Your task to perform on an android device: Search for a coffee table on IKEA Image 0: 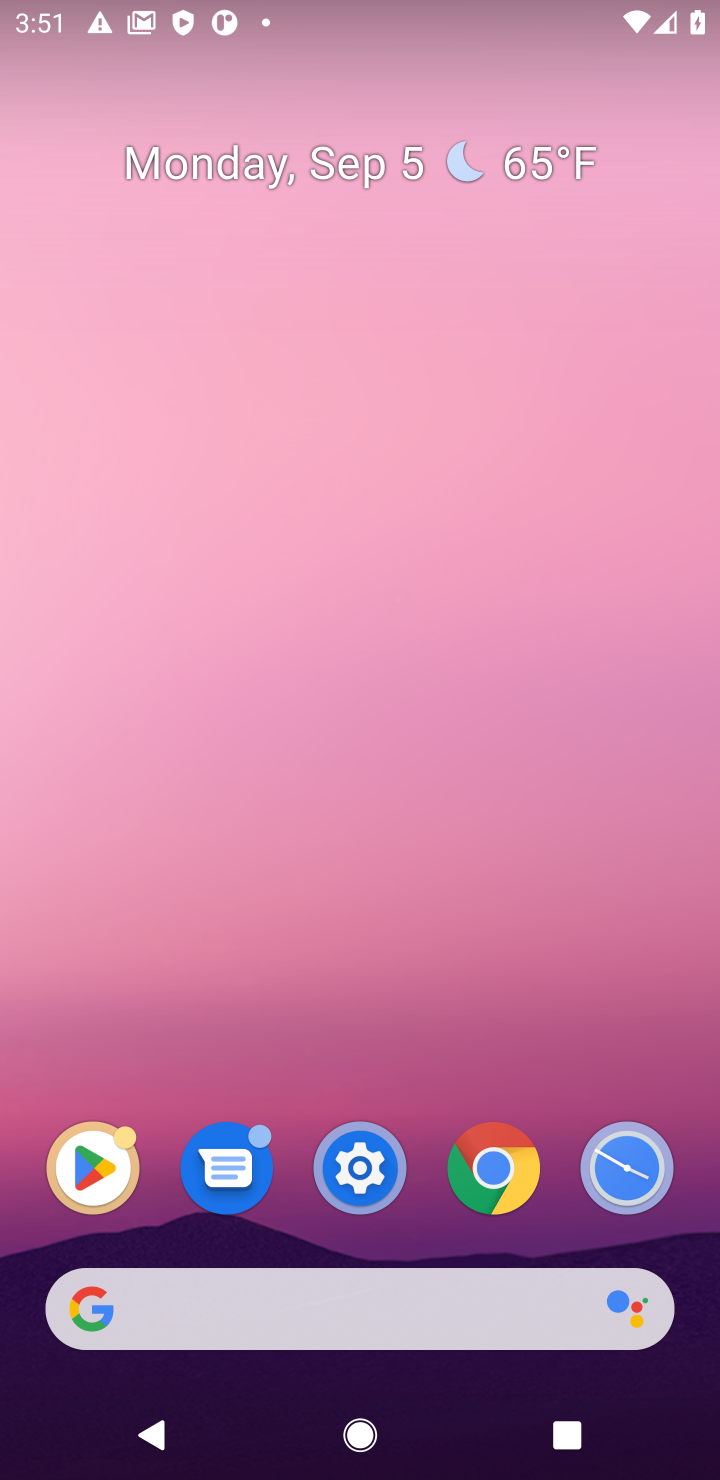
Step 0: click (518, 1280)
Your task to perform on an android device: Search for a coffee table on IKEA Image 1: 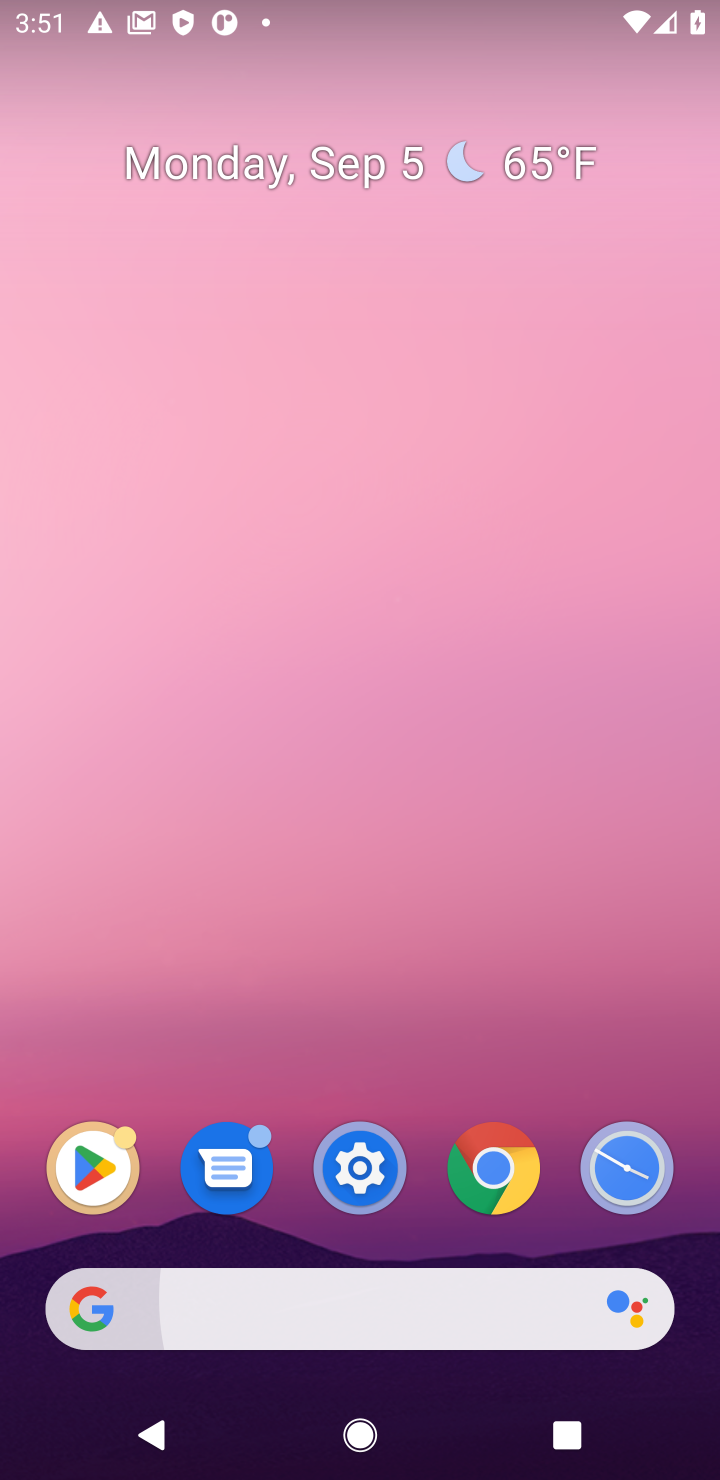
Step 1: click (502, 1299)
Your task to perform on an android device: Search for a coffee table on IKEA Image 2: 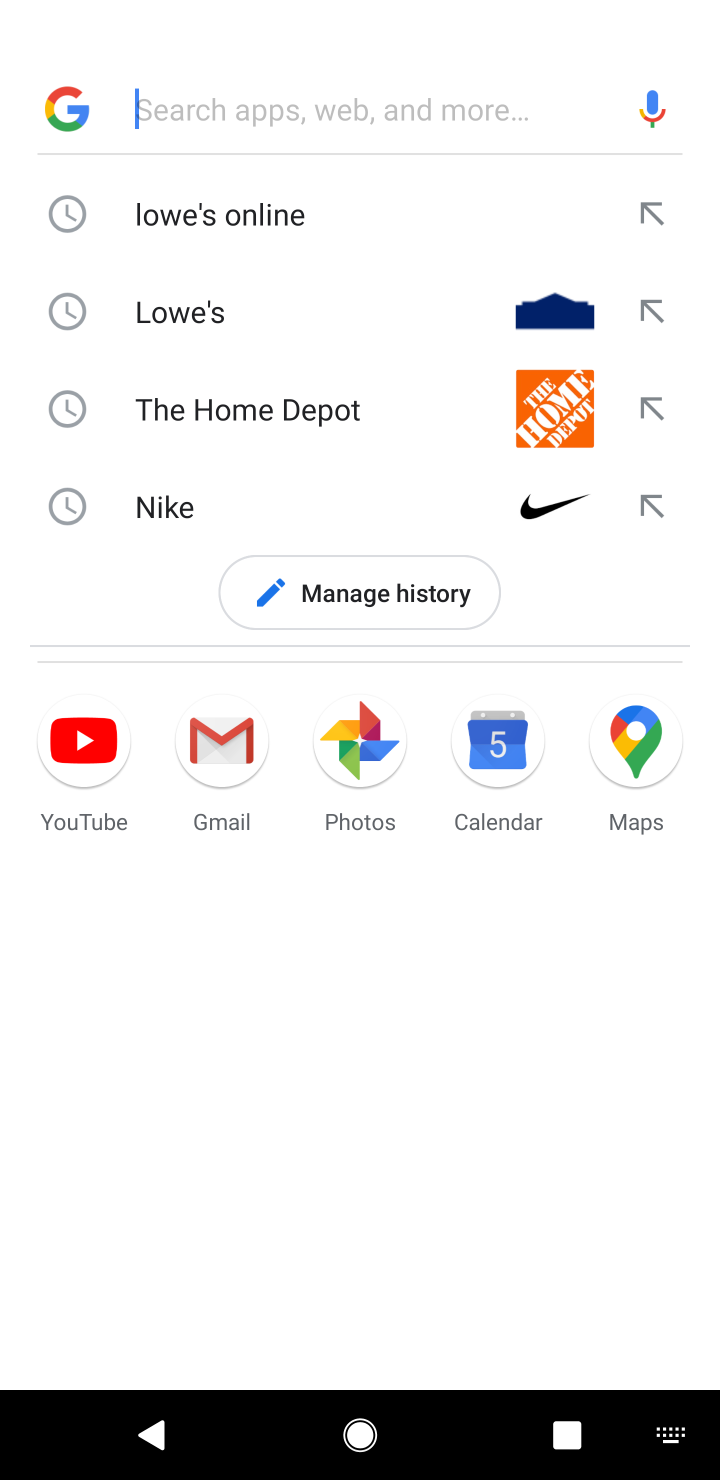
Step 2: type "ikea"
Your task to perform on an android device: Search for a coffee table on IKEA Image 3: 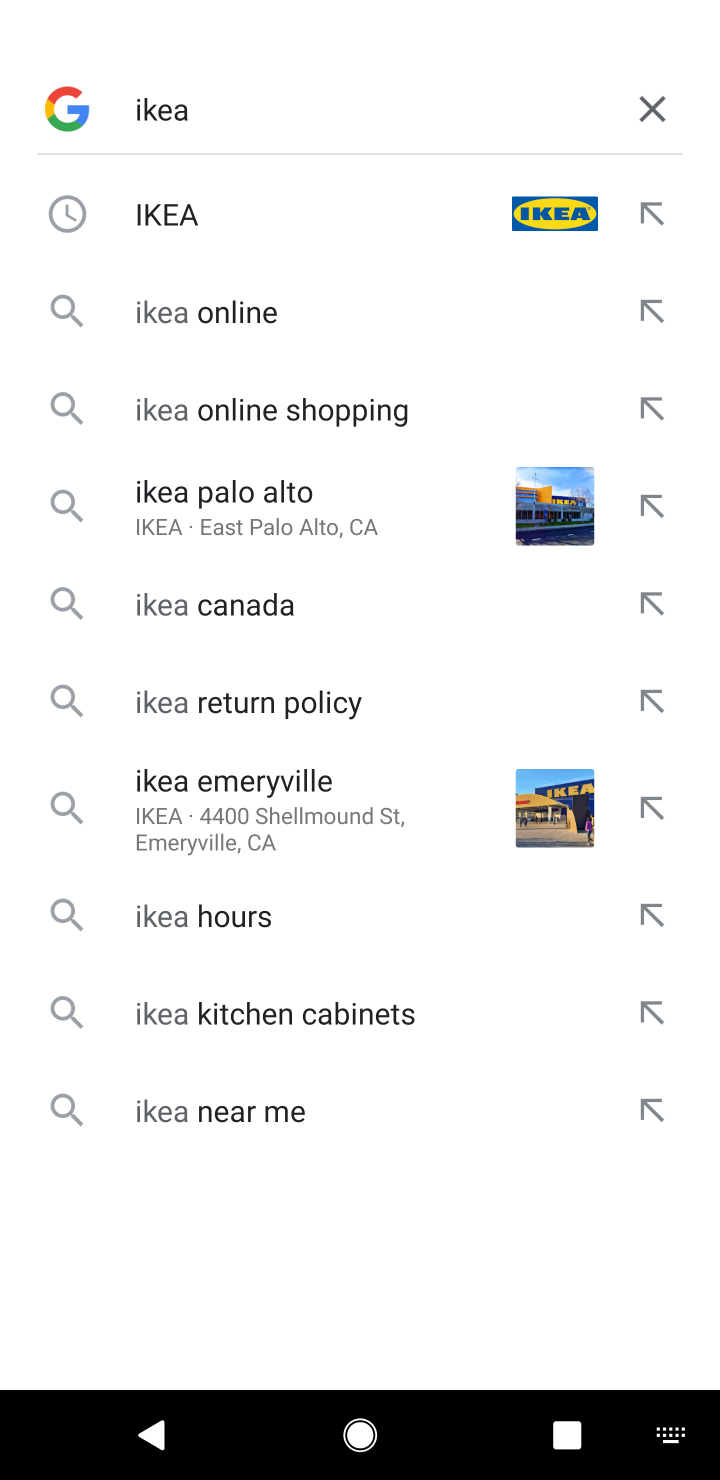
Step 3: click (191, 222)
Your task to perform on an android device: Search for a coffee table on IKEA Image 4: 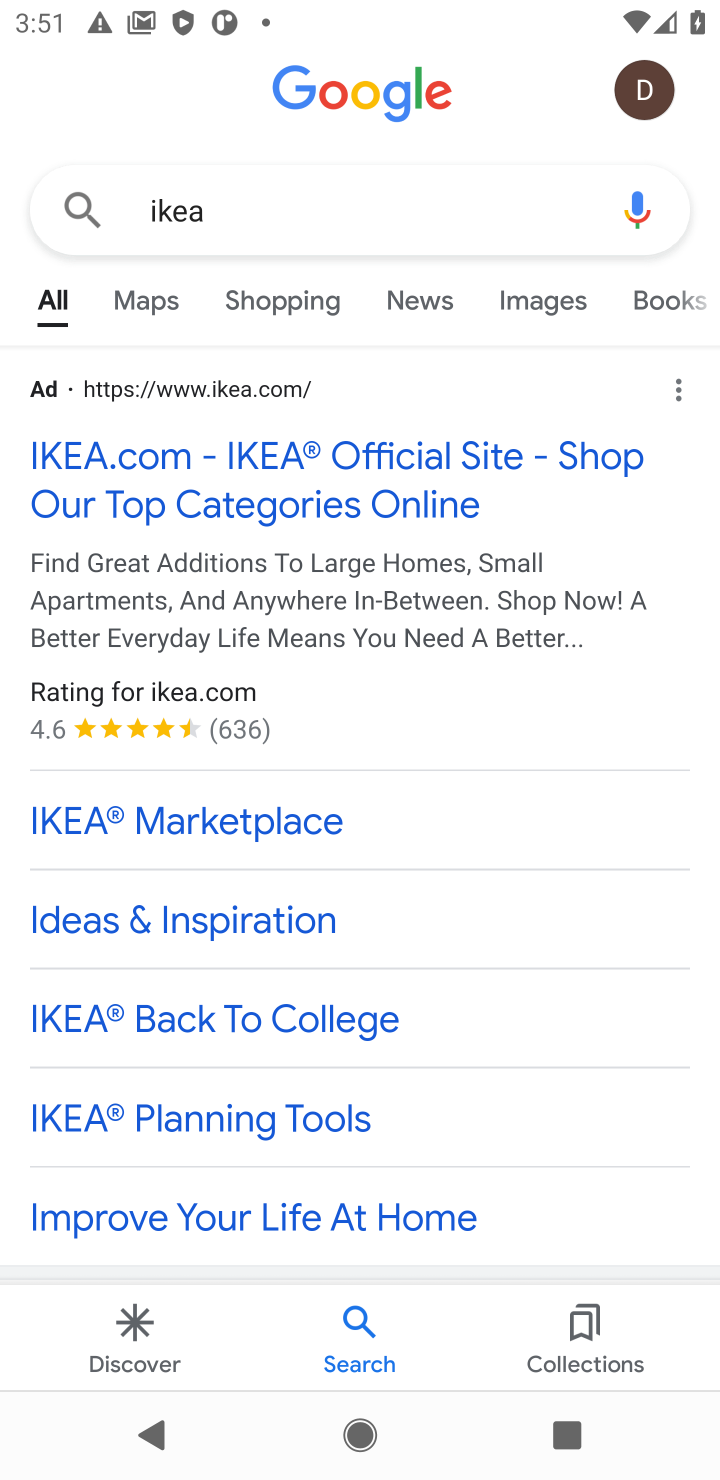
Step 4: click (500, 476)
Your task to perform on an android device: Search for a coffee table on IKEA Image 5: 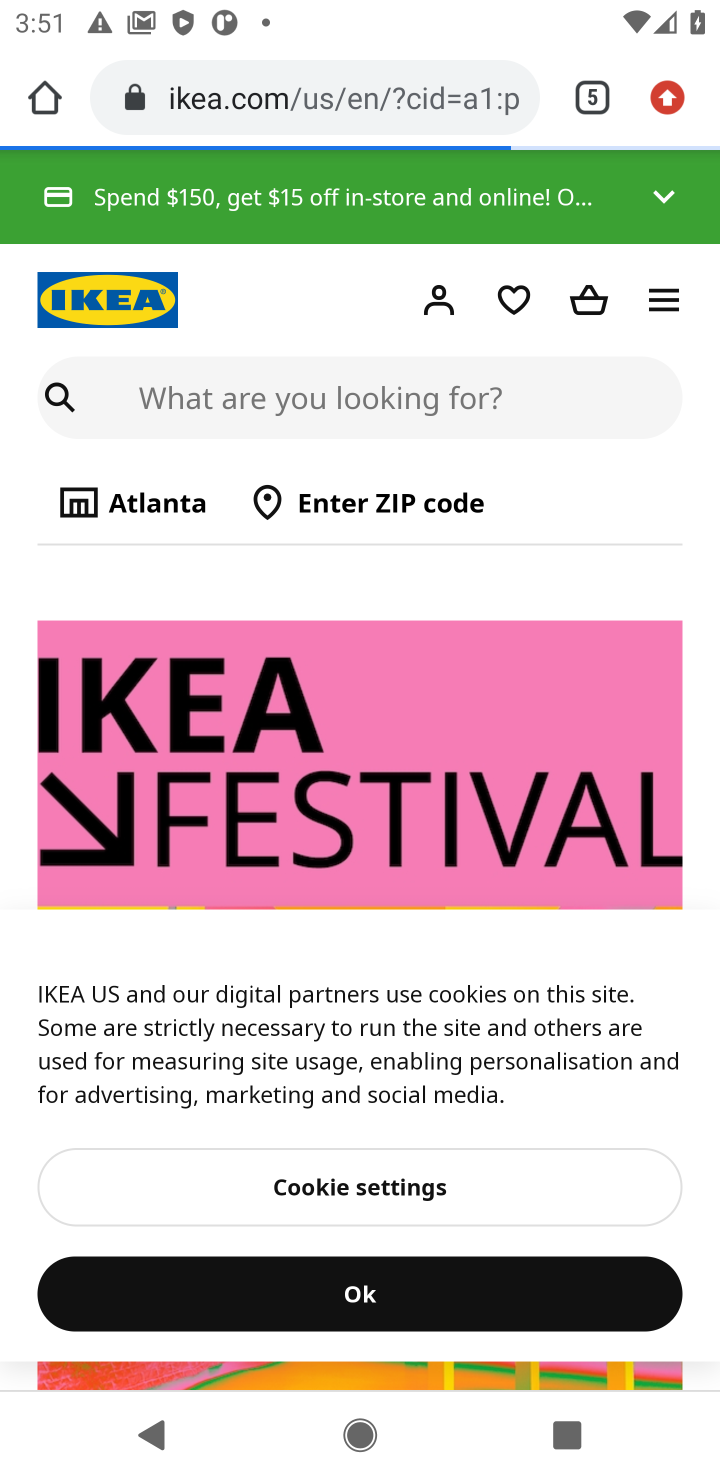
Step 5: click (263, 394)
Your task to perform on an android device: Search for a coffee table on IKEA Image 6: 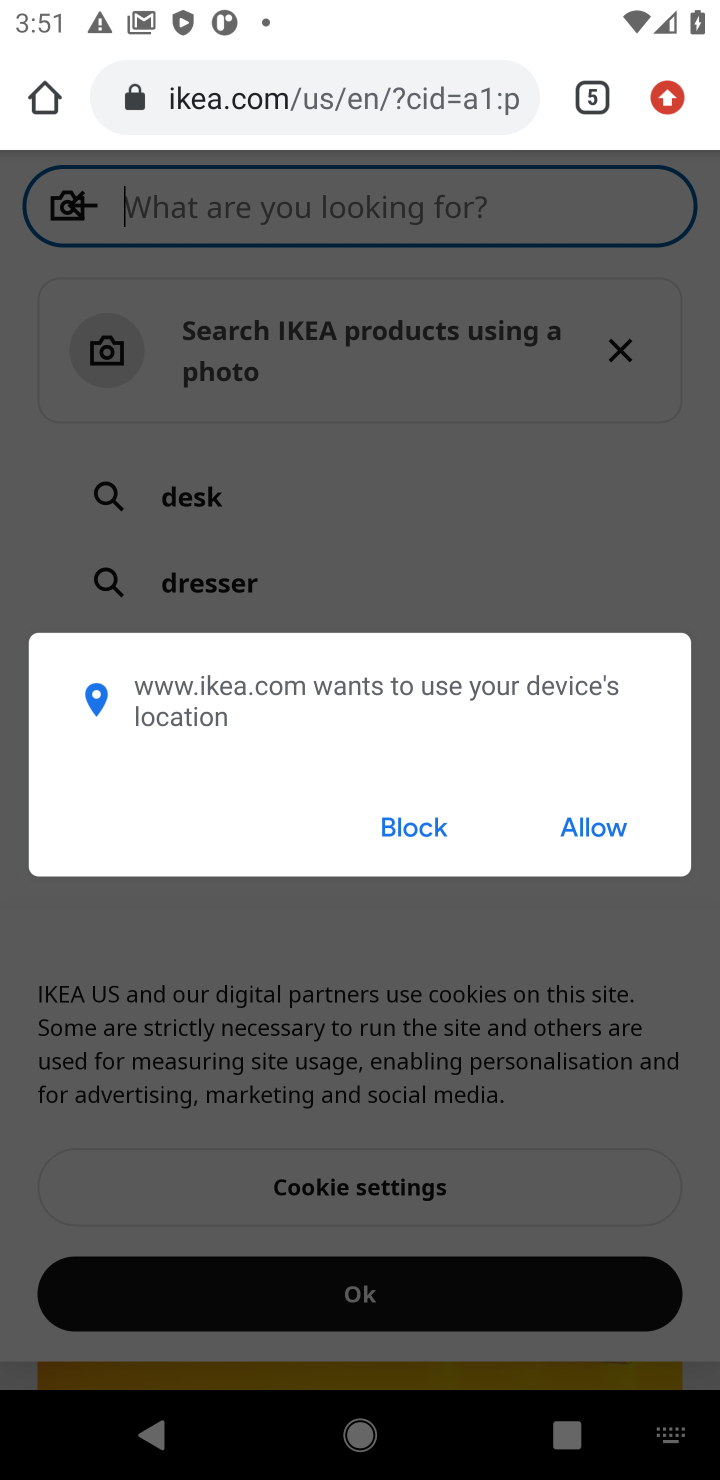
Step 6: click (580, 836)
Your task to perform on an android device: Search for a coffee table on IKEA Image 7: 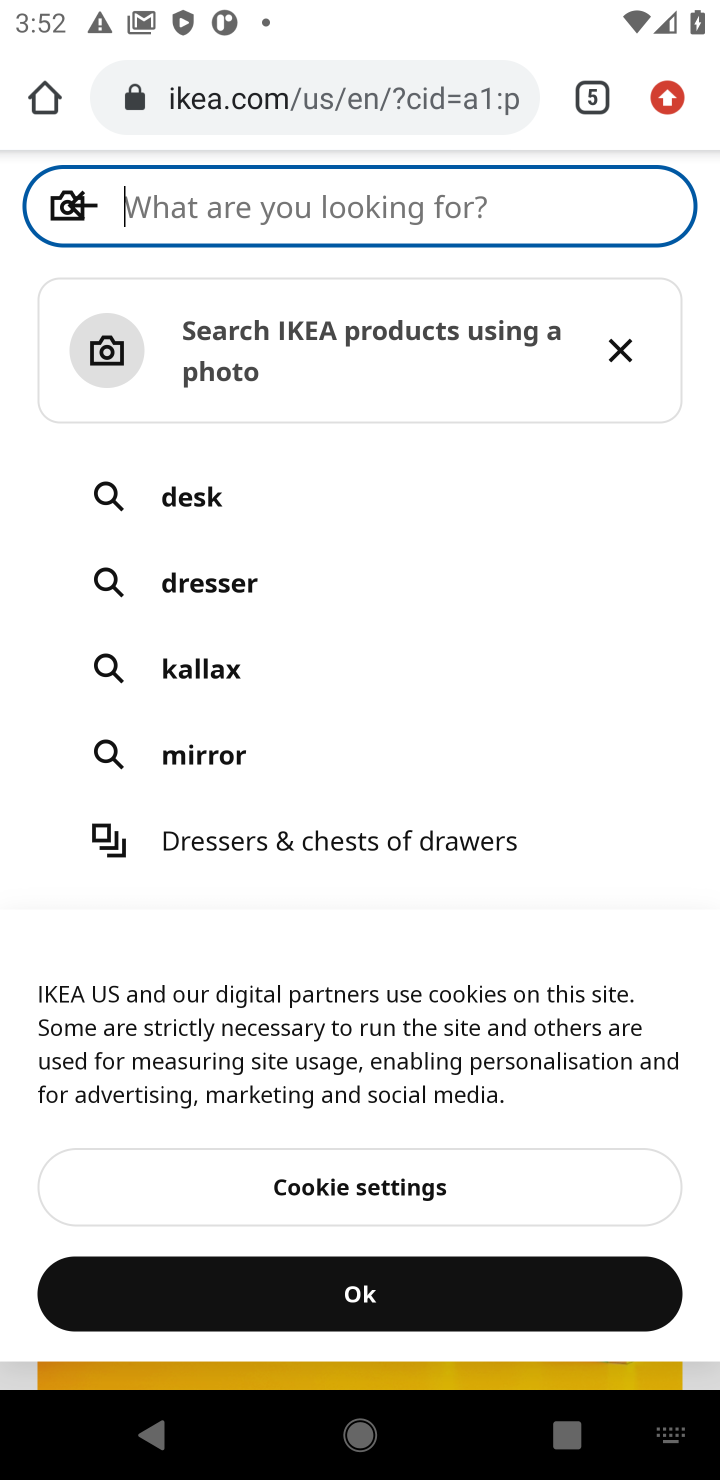
Step 7: type "coffee table"
Your task to perform on an android device: Search for a coffee table on IKEA Image 8: 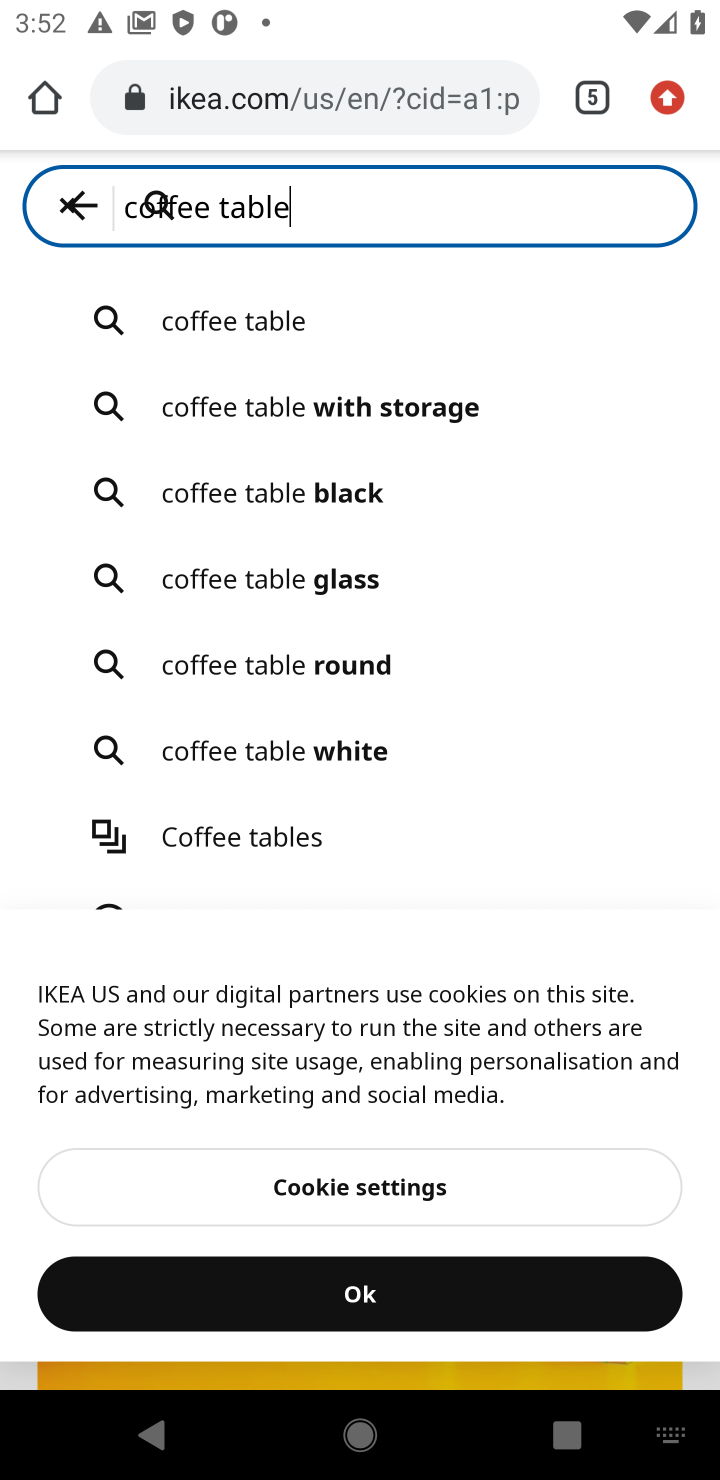
Step 8: click (316, 320)
Your task to perform on an android device: Search for a coffee table on IKEA Image 9: 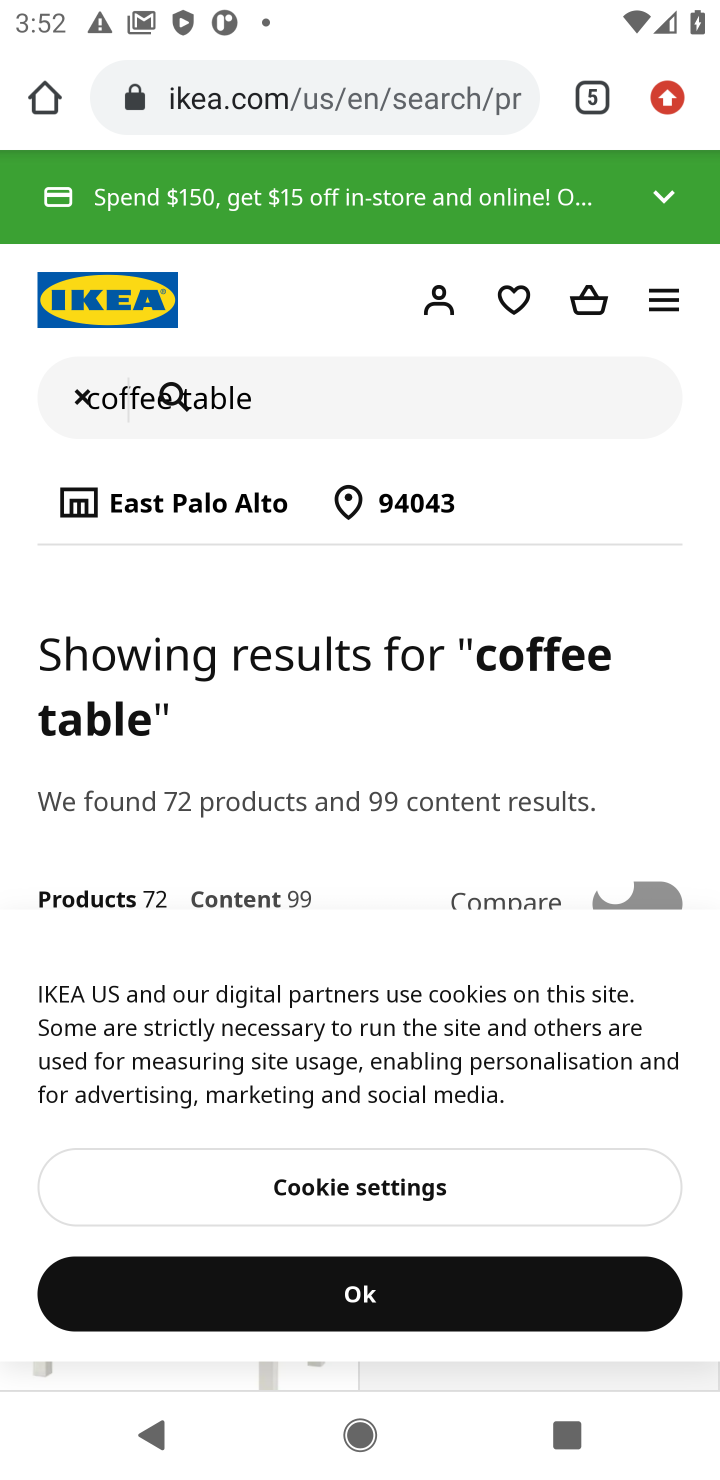
Step 9: click (275, 1275)
Your task to perform on an android device: Search for a coffee table on IKEA Image 10: 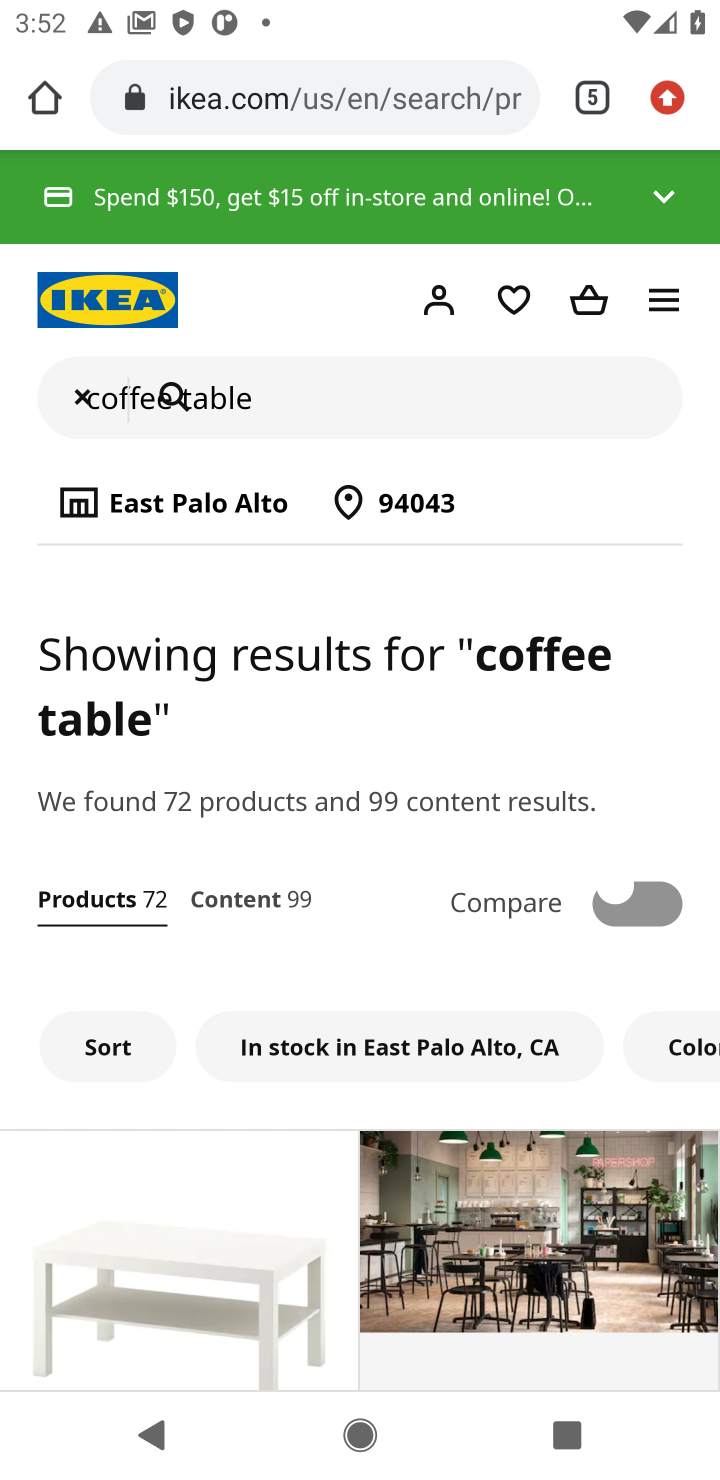
Step 10: task complete